Your task to perform on an android device: turn off translation in the chrome app Image 0: 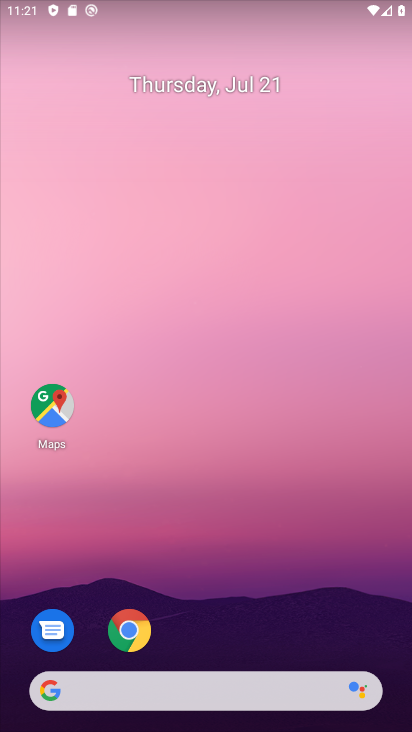
Step 0: press home button
Your task to perform on an android device: turn off translation in the chrome app Image 1: 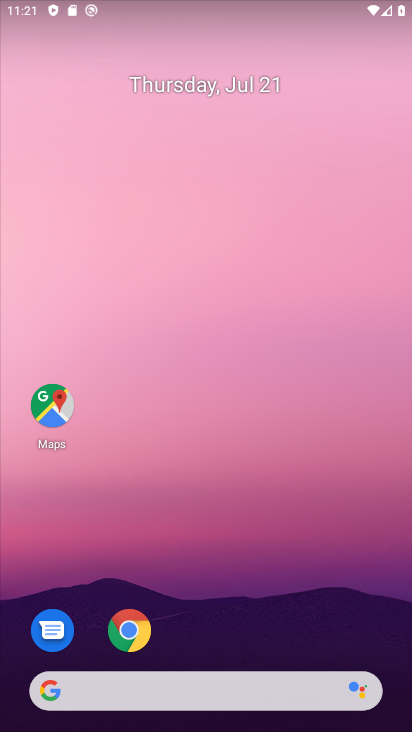
Step 1: click (141, 622)
Your task to perform on an android device: turn off translation in the chrome app Image 2: 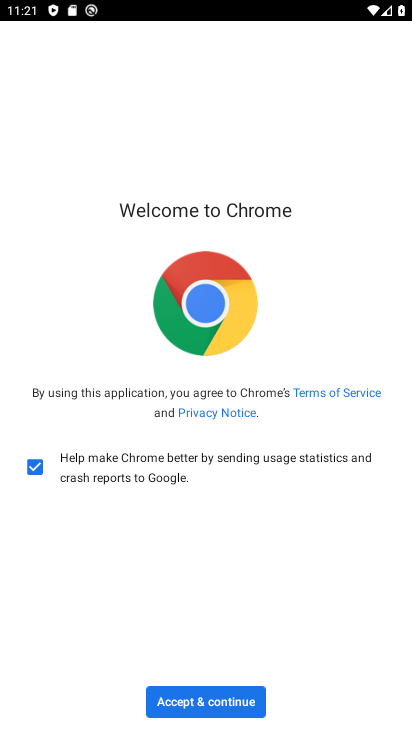
Step 2: click (212, 700)
Your task to perform on an android device: turn off translation in the chrome app Image 3: 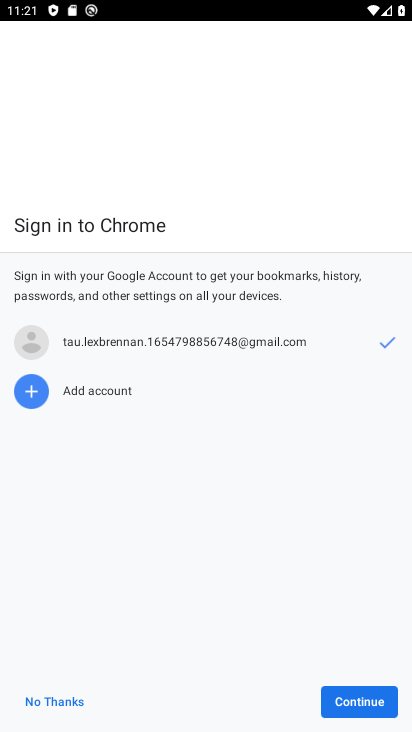
Step 3: click (361, 701)
Your task to perform on an android device: turn off translation in the chrome app Image 4: 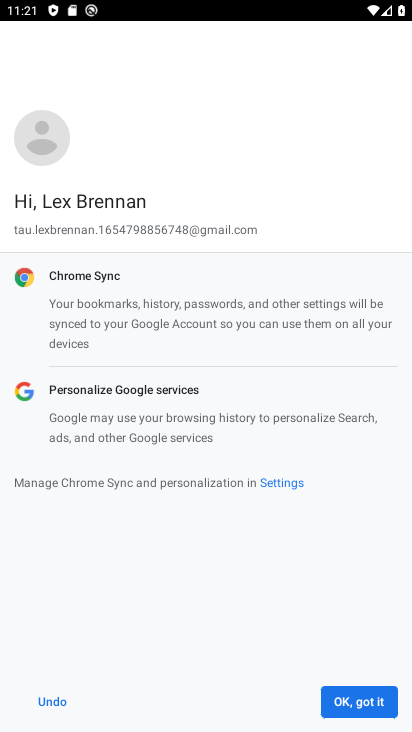
Step 4: click (369, 702)
Your task to perform on an android device: turn off translation in the chrome app Image 5: 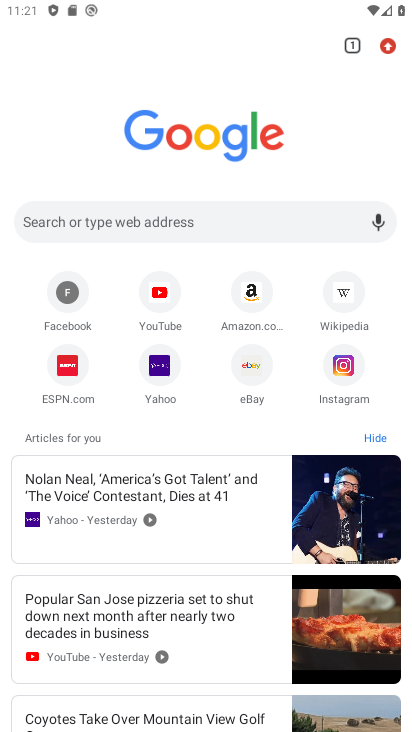
Step 5: click (397, 36)
Your task to perform on an android device: turn off translation in the chrome app Image 6: 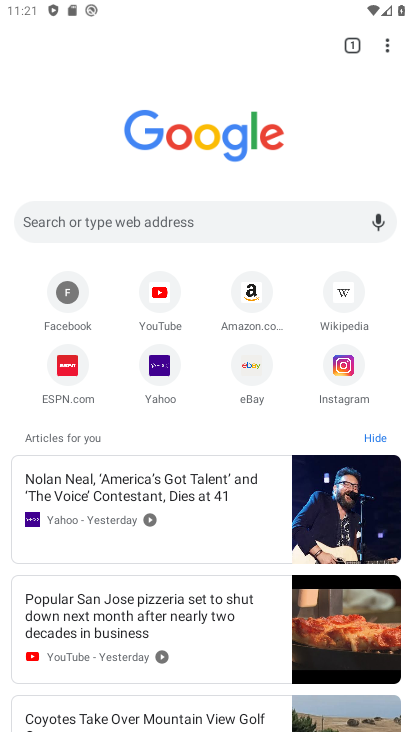
Step 6: click (382, 43)
Your task to perform on an android device: turn off translation in the chrome app Image 7: 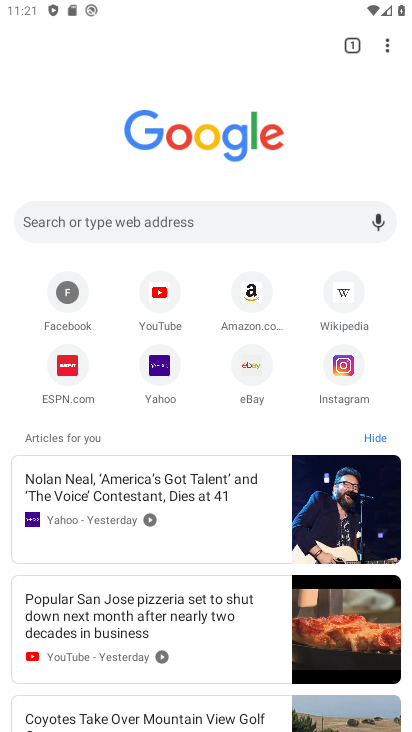
Step 7: drag from (381, 44) to (239, 435)
Your task to perform on an android device: turn off translation in the chrome app Image 8: 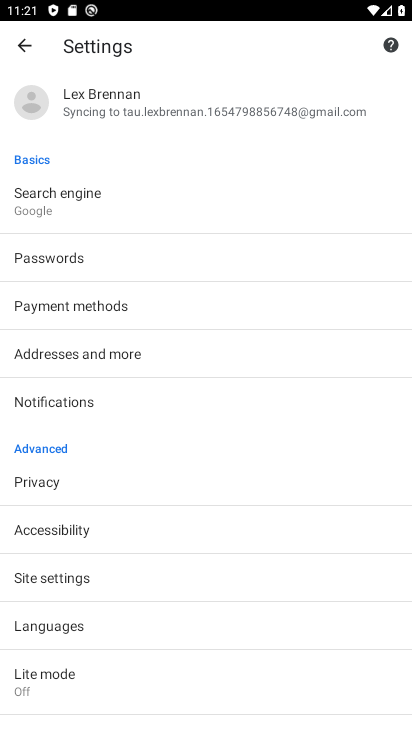
Step 8: click (76, 622)
Your task to perform on an android device: turn off translation in the chrome app Image 9: 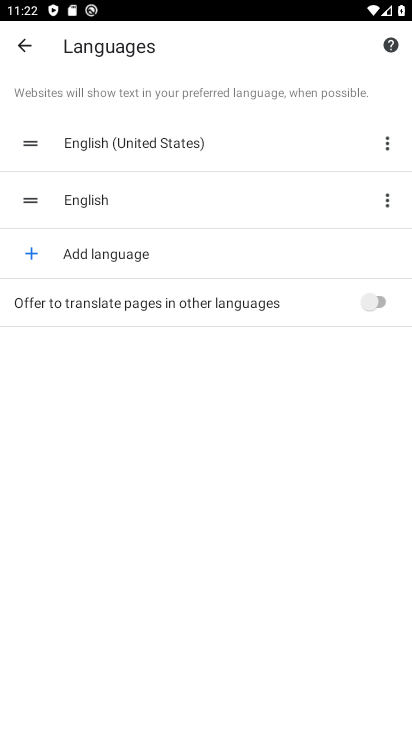
Step 9: task complete